Your task to perform on an android device: Open calendar and show me the first week of next month Image 0: 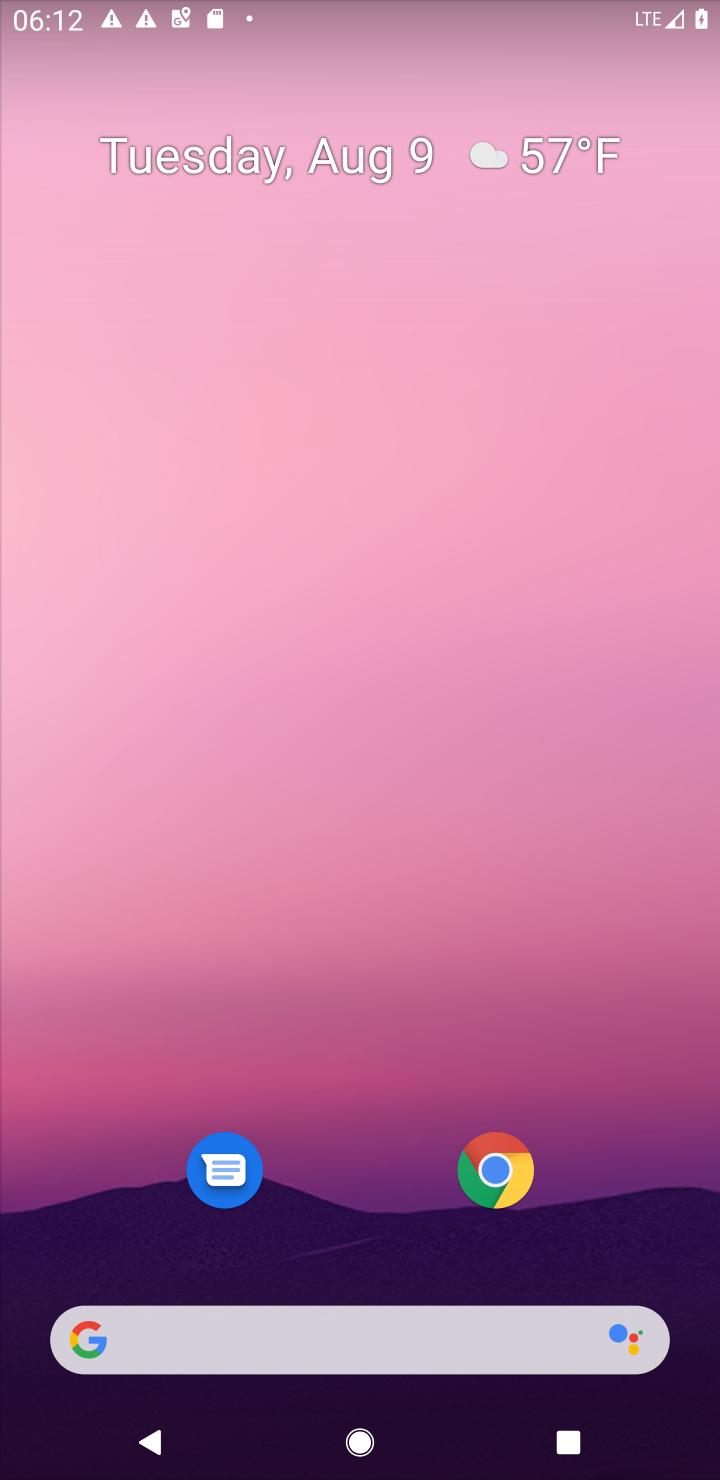
Step 0: press home button
Your task to perform on an android device: Open calendar and show me the first week of next month Image 1: 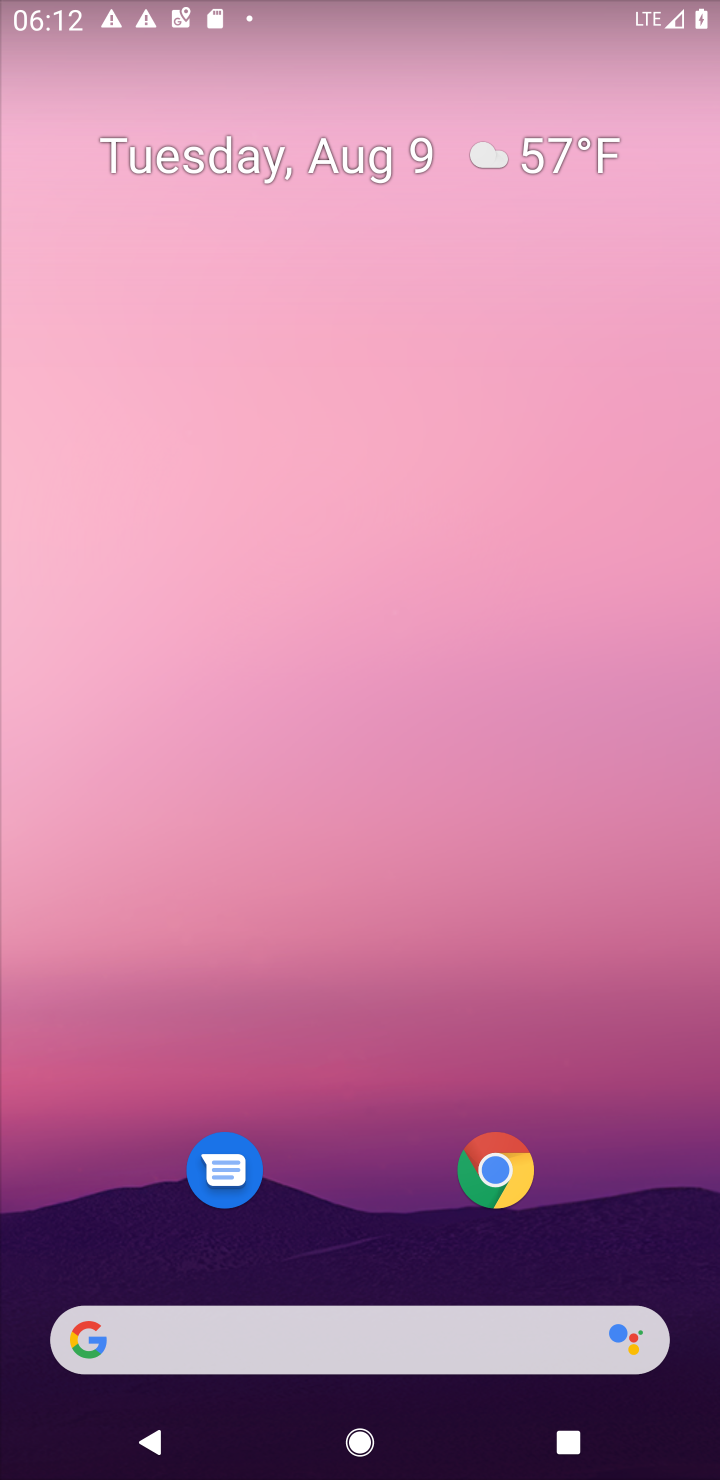
Step 1: drag from (336, 1271) to (362, 41)
Your task to perform on an android device: Open calendar and show me the first week of next month Image 2: 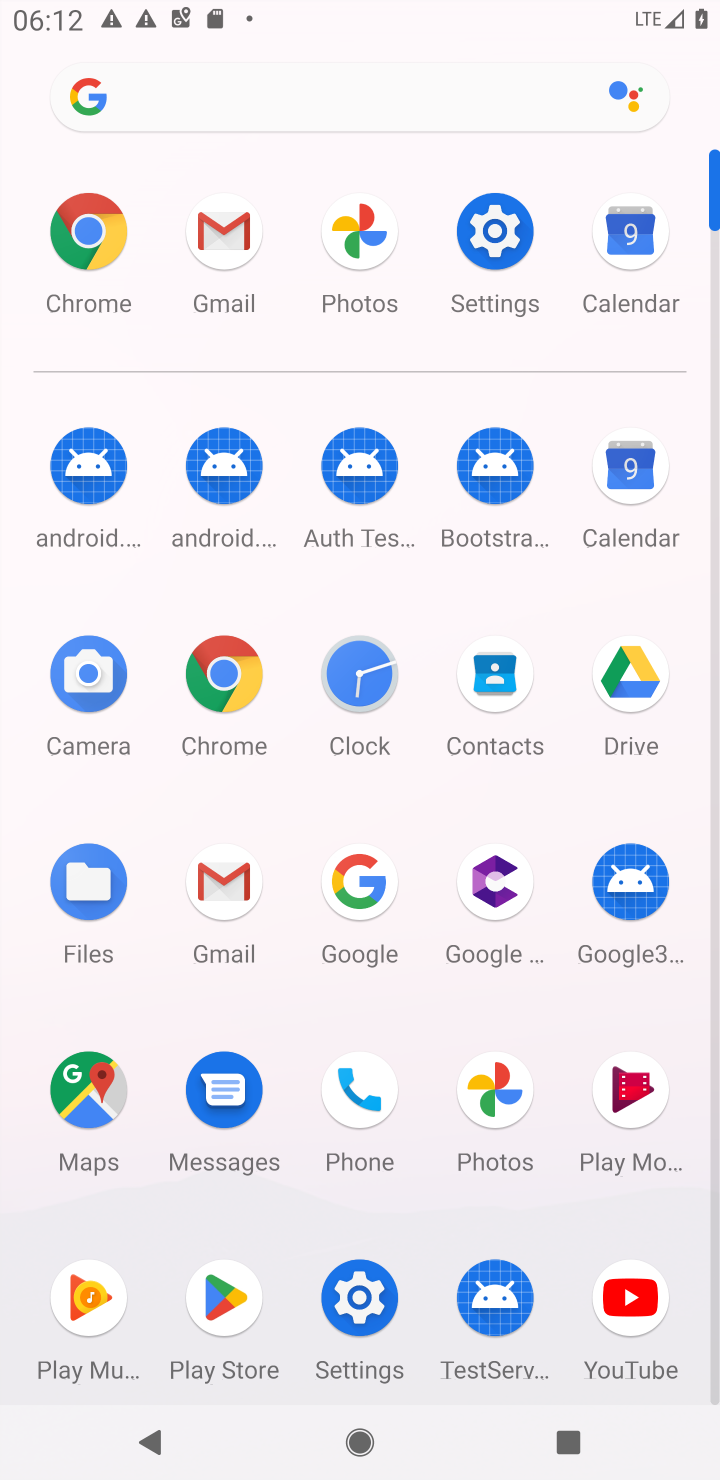
Step 2: click (631, 488)
Your task to perform on an android device: Open calendar and show me the first week of next month Image 3: 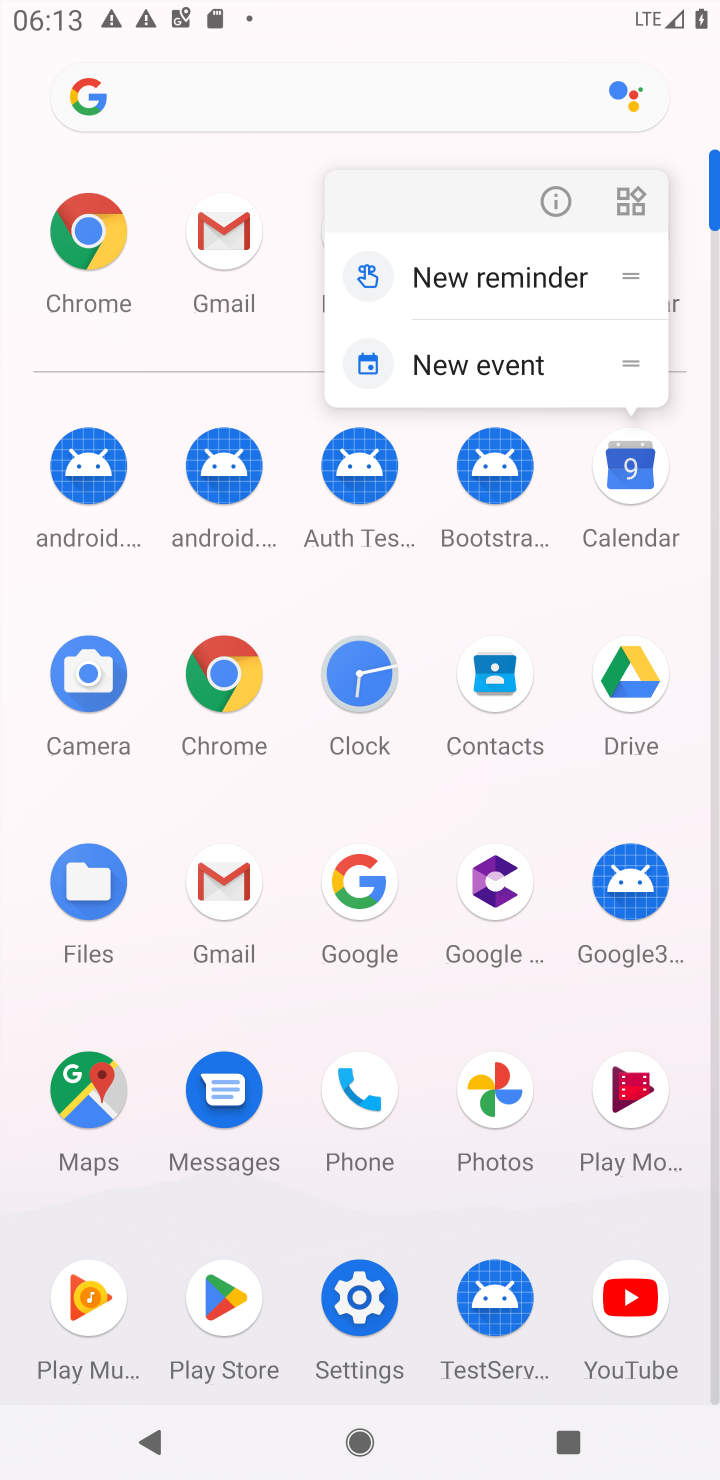
Step 3: click (631, 488)
Your task to perform on an android device: Open calendar and show me the first week of next month Image 4: 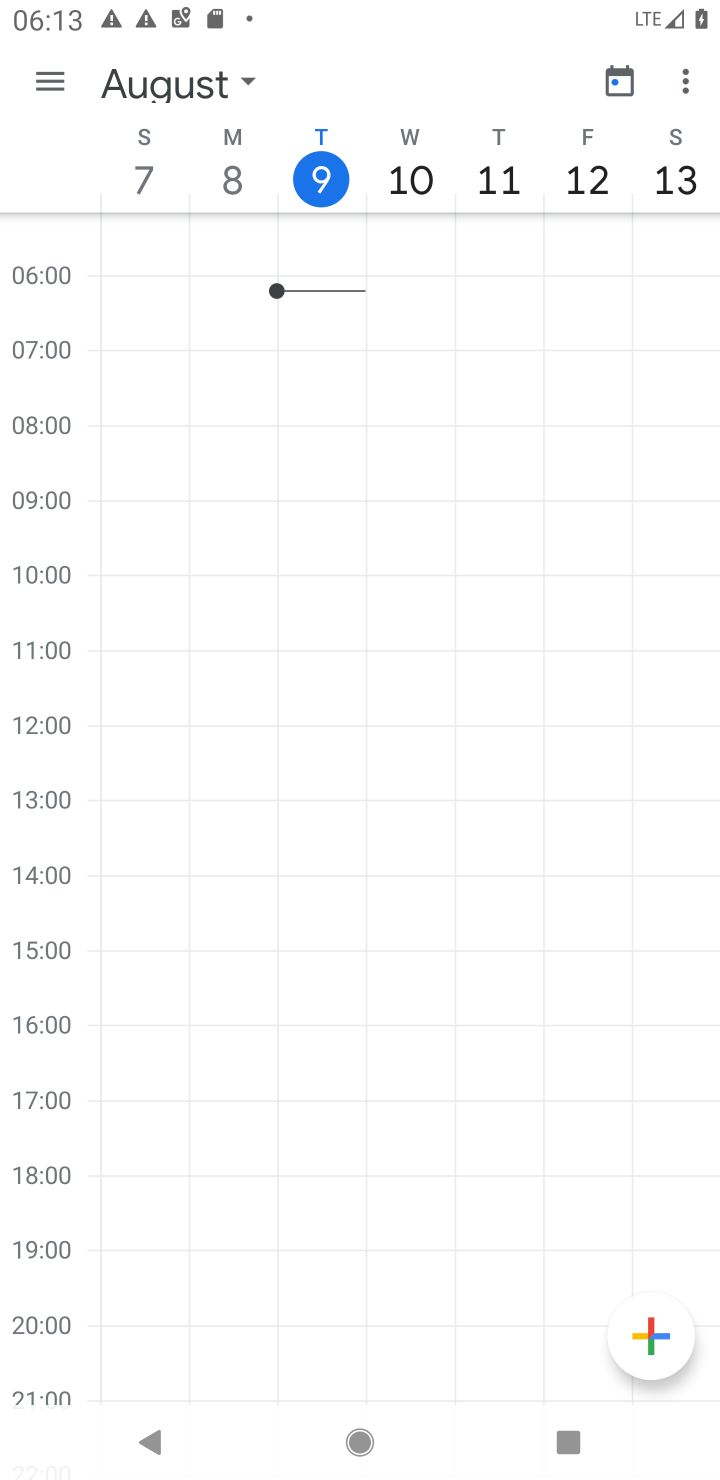
Step 4: click (241, 88)
Your task to perform on an android device: Open calendar and show me the first week of next month Image 5: 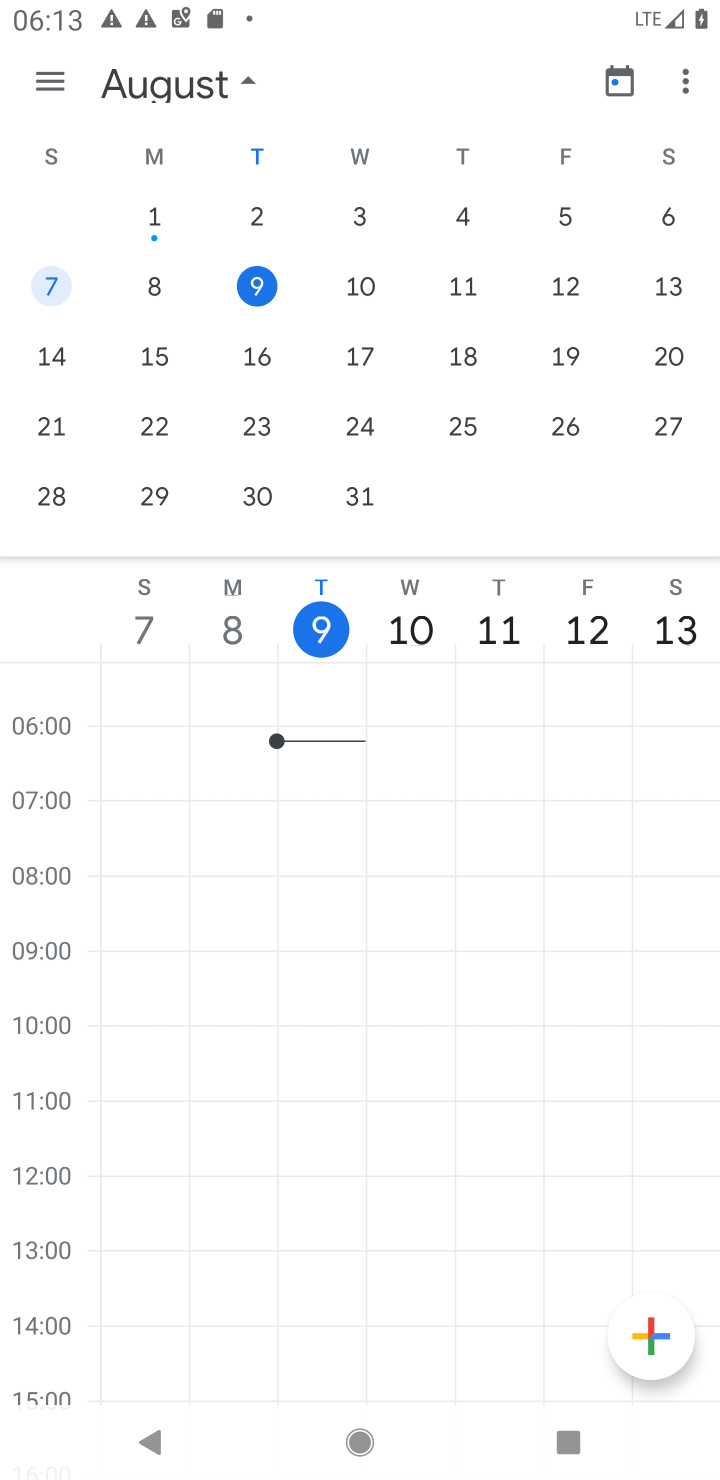
Step 5: drag from (519, 368) to (74, 355)
Your task to perform on an android device: Open calendar and show me the first week of next month Image 6: 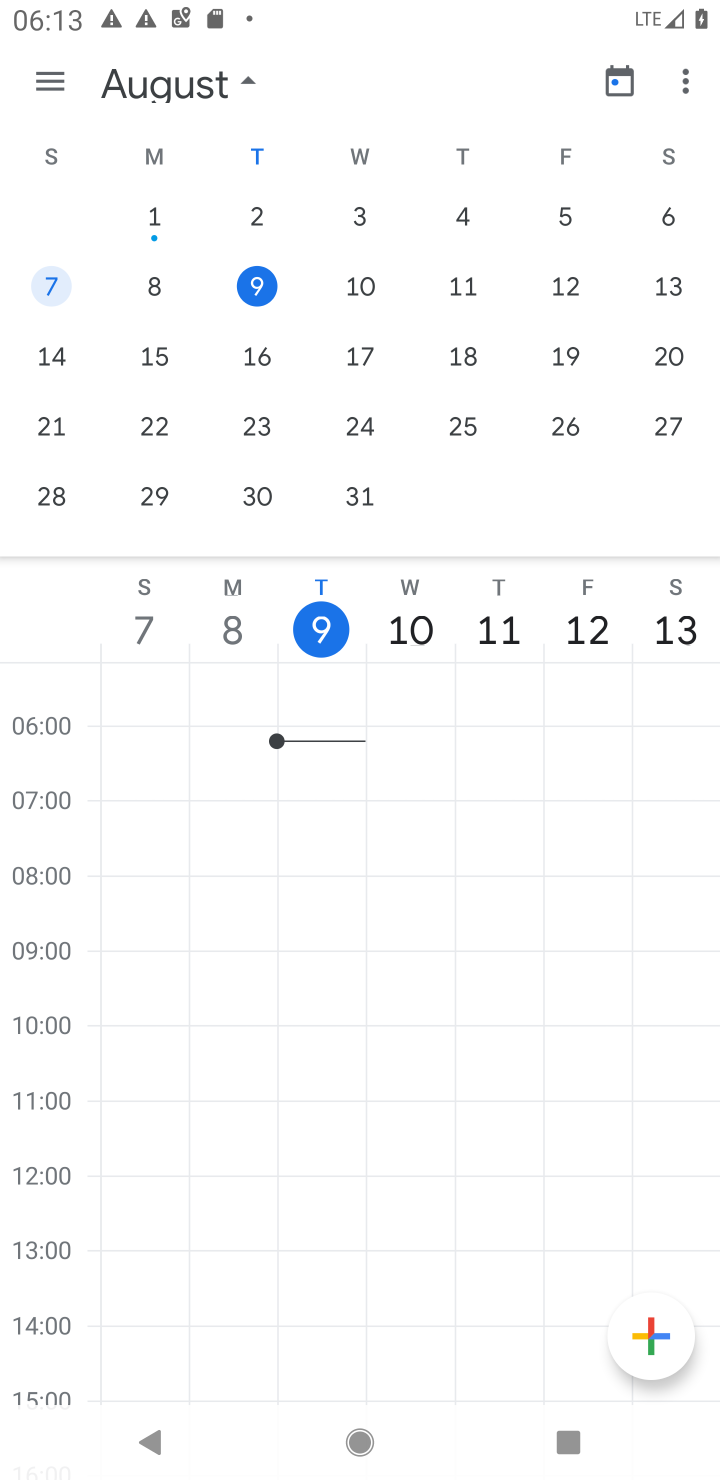
Step 6: drag from (526, 347) to (202, 320)
Your task to perform on an android device: Open calendar and show me the first week of next month Image 7: 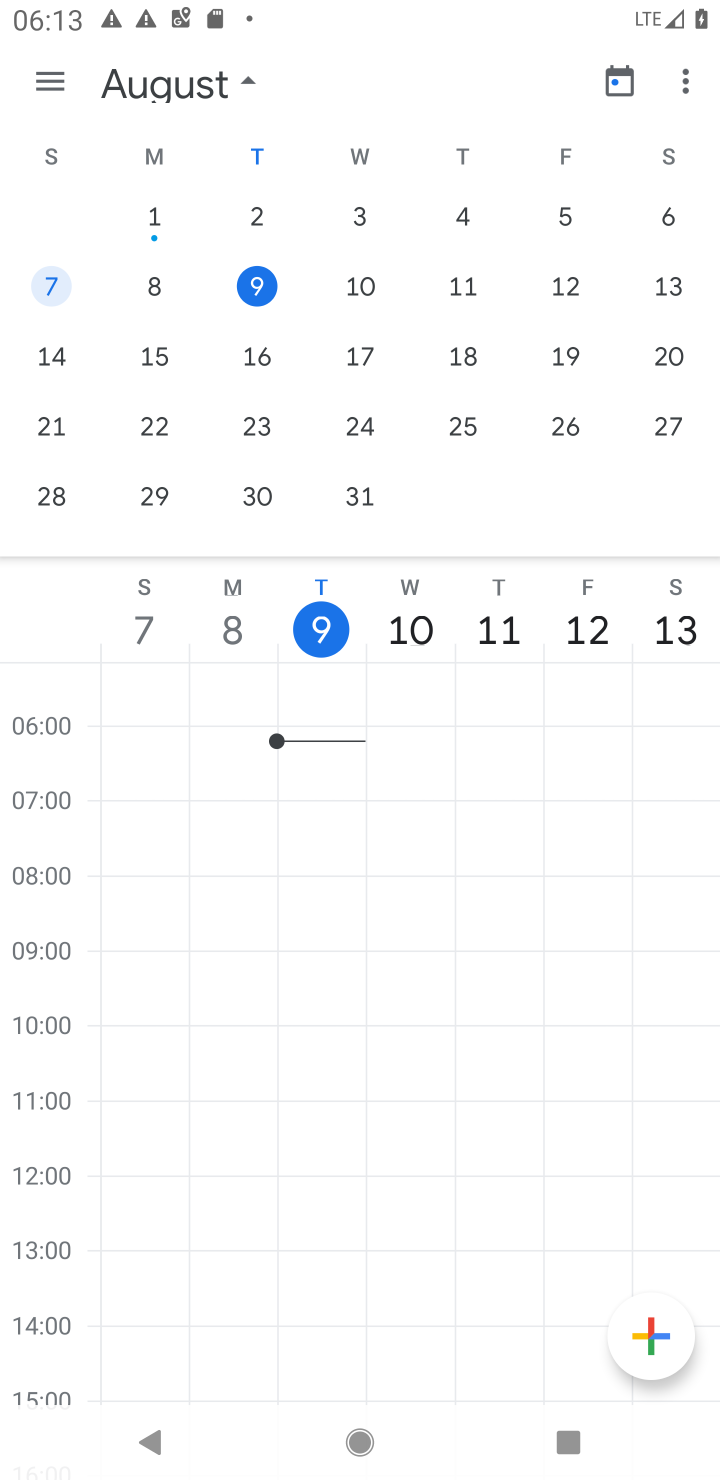
Step 7: drag from (530, 320) to (105, 282)
Your task to perform on an android device: Open calendar and show me the first week of next month Image 8: 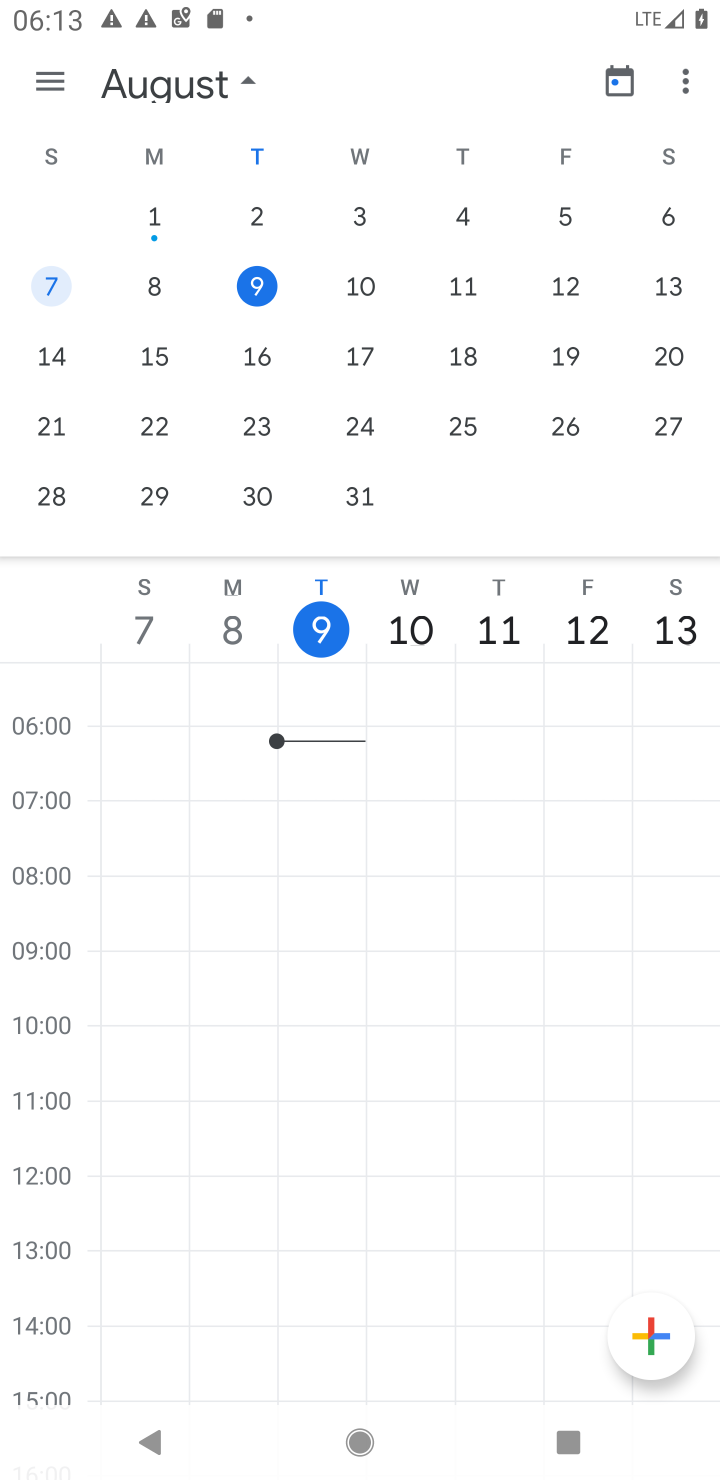
Step 8: drag from (644, 313) to (76, 406)
Your task to perform on an android device: Open calendar and show me the first week of next month Image 9: 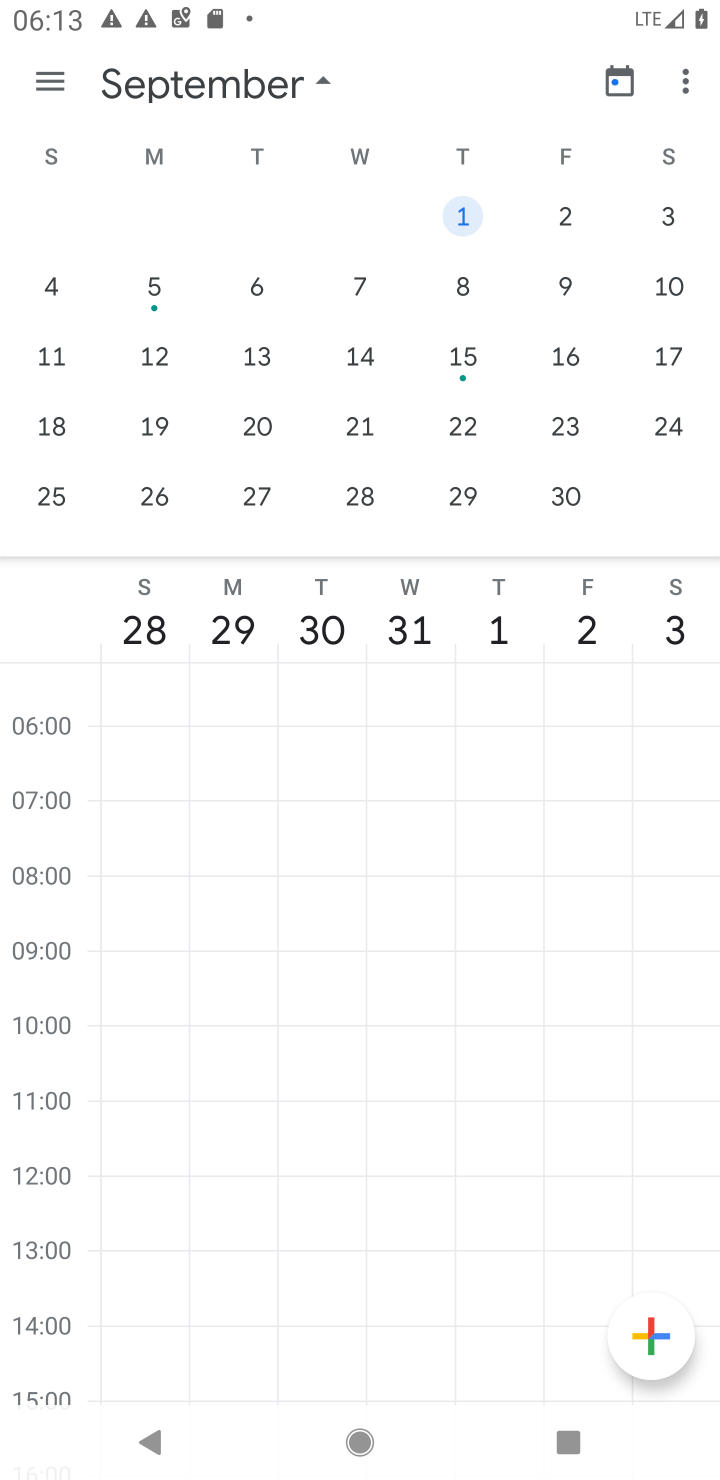
Step 9: click (453, 218)
Your task to perform on an android device: Open calendar and show me the first week of next month Image 10: 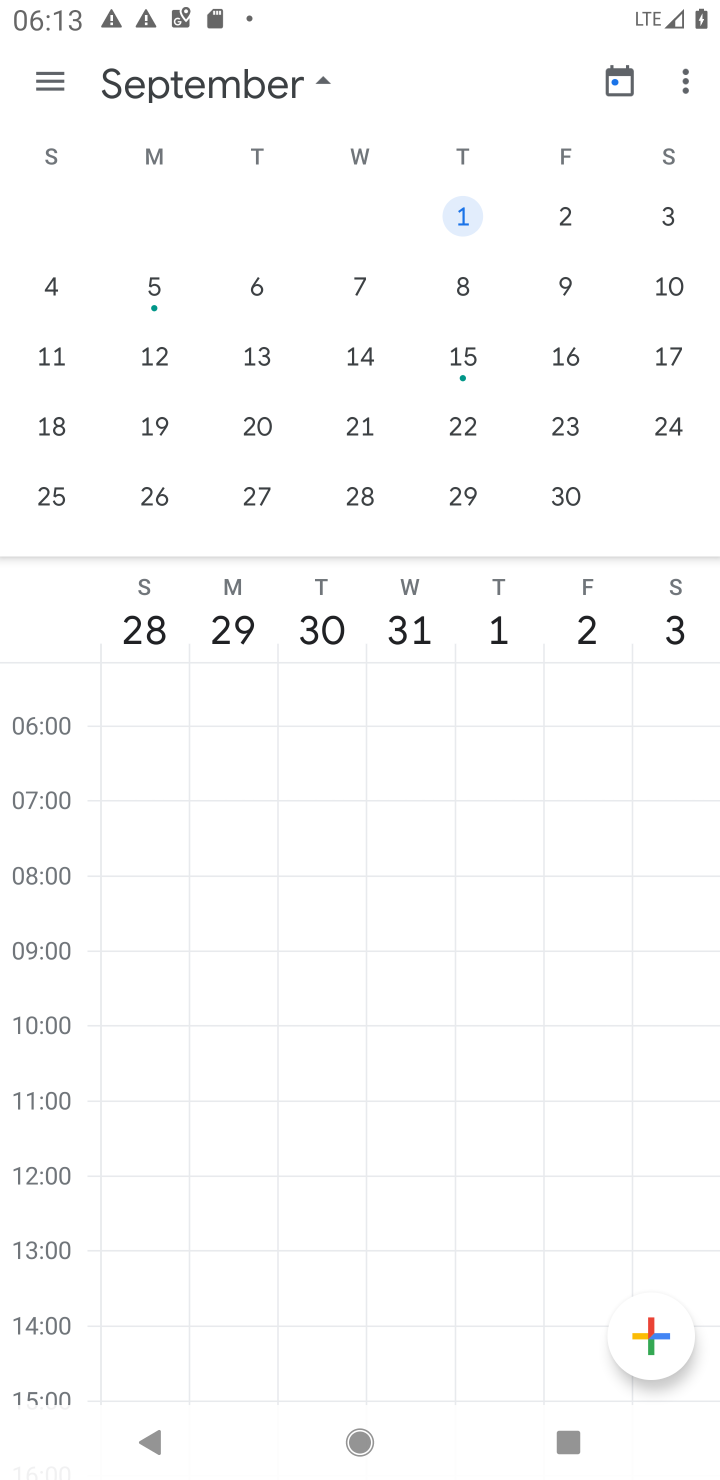
Step 10: click (561, 220)
Your task to perform on an android device: Open calendar and show me the first week of next month Image 11: 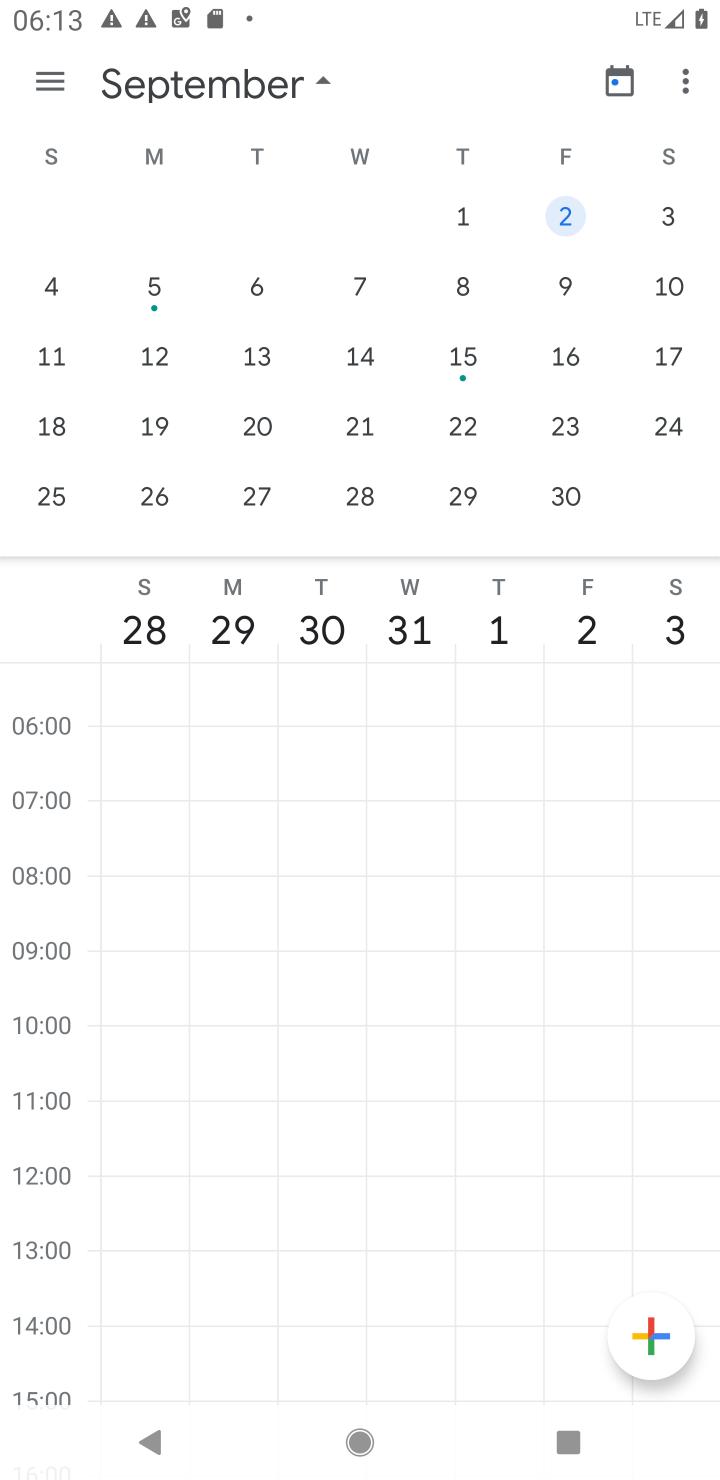
Step 11: click (676, 236)
Your task to perform on an android device: Open calendar and show me the first week of next month Image 12: 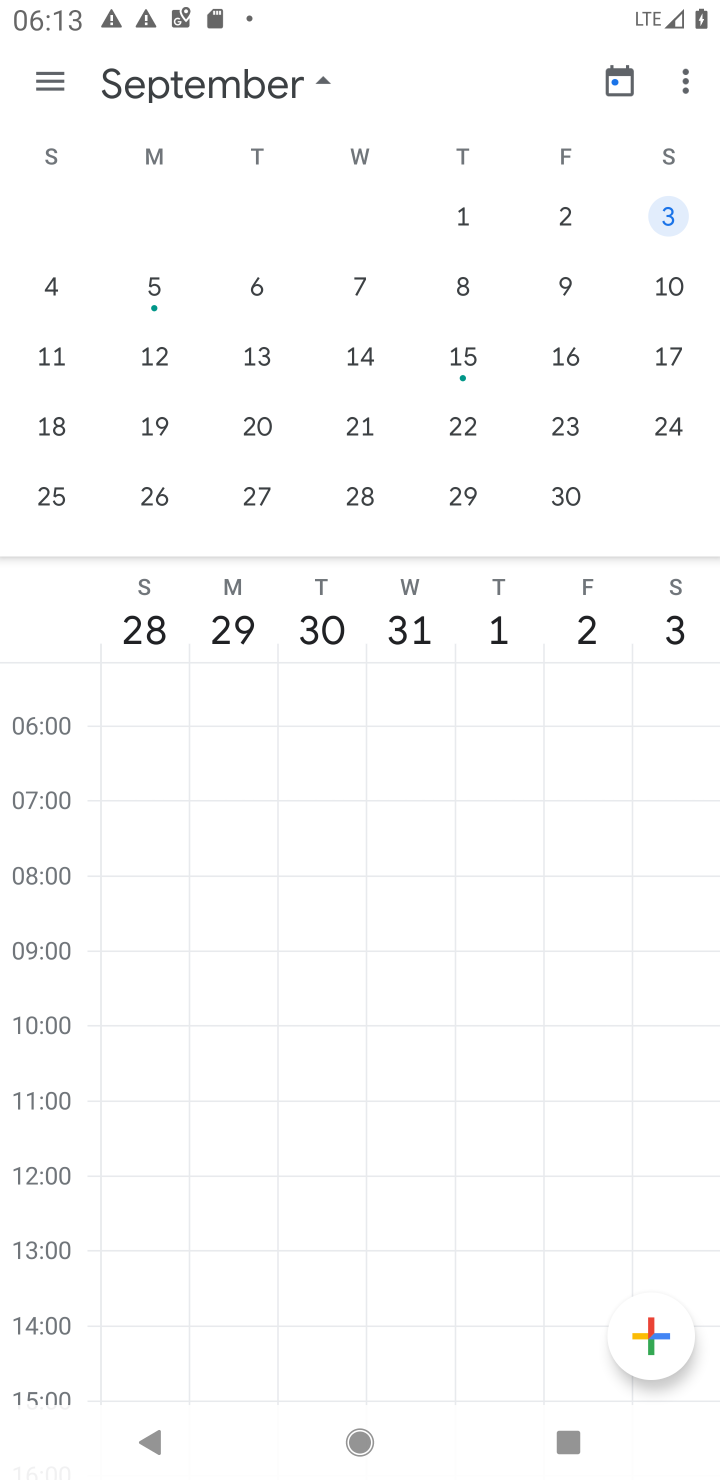
Step 12: click (64, 284)
Your task to perform on an android device: Open calendar and show me the first week of next month Image 13: 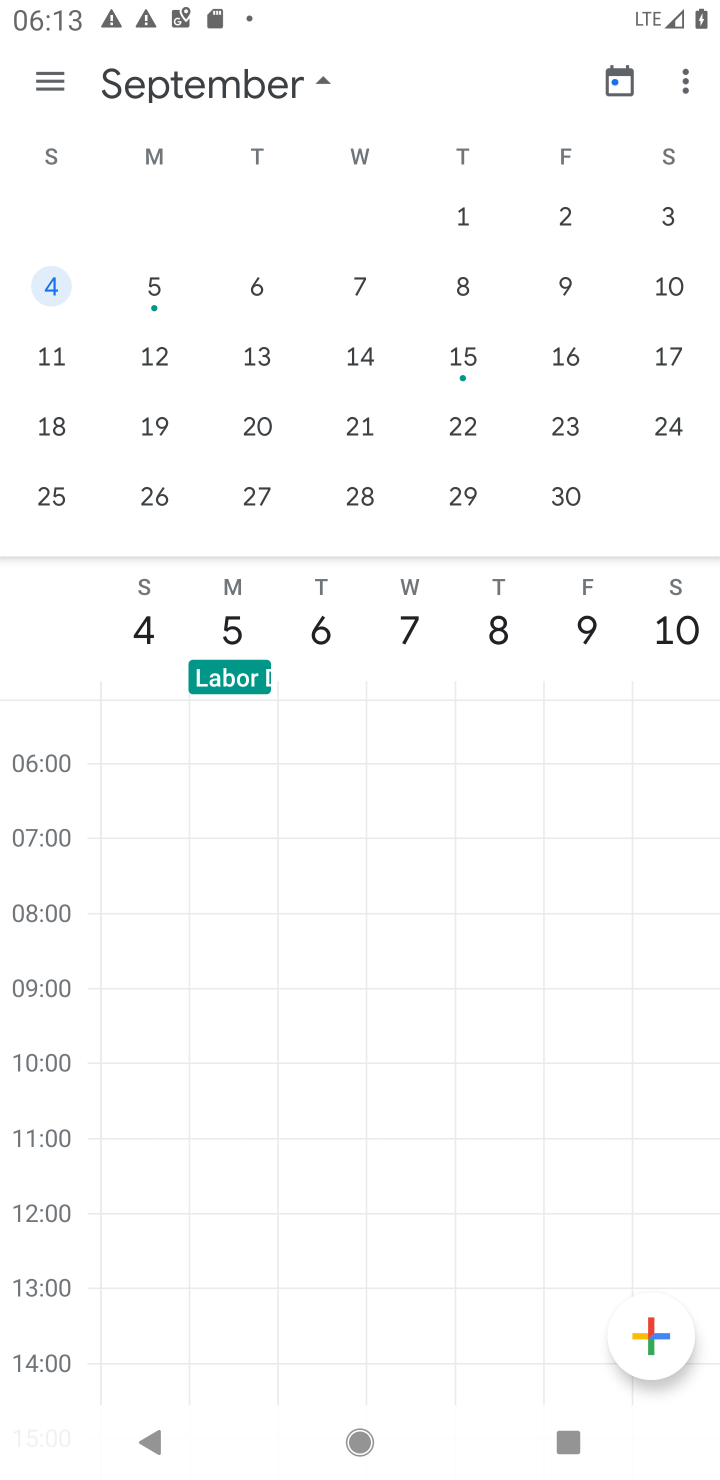
Step 13: task complete